Your task to perform on an android device: toggle sleep mode Image 0: 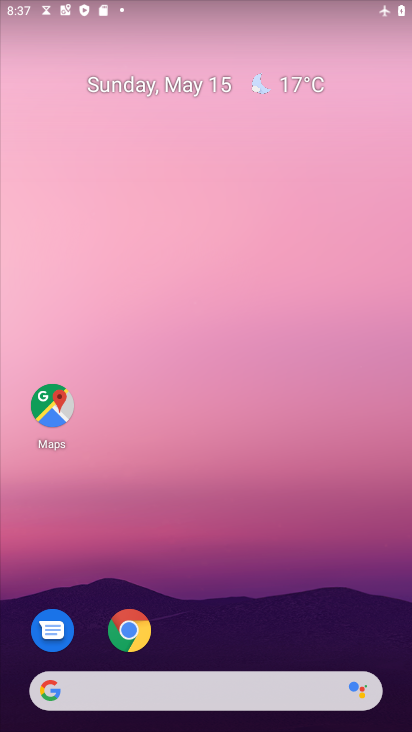
Step 0: drag from (224, 525) to (203, 96)
Your task to perform on an android device: toggle sleep mode Image 1: 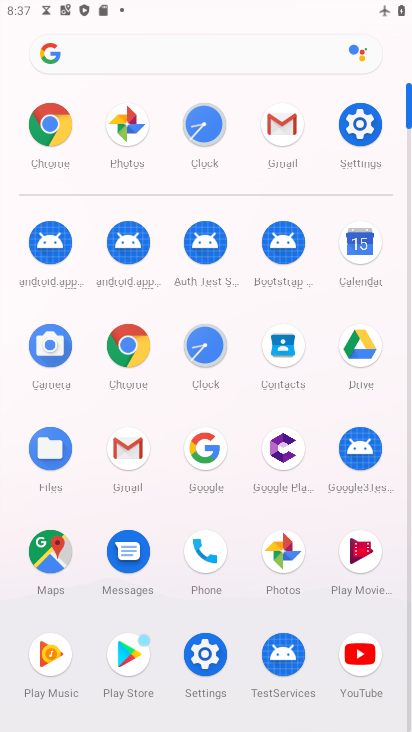
Step 1: click (389, 122)
Your task to perform on an android device: toggle sleep mode Image 2: 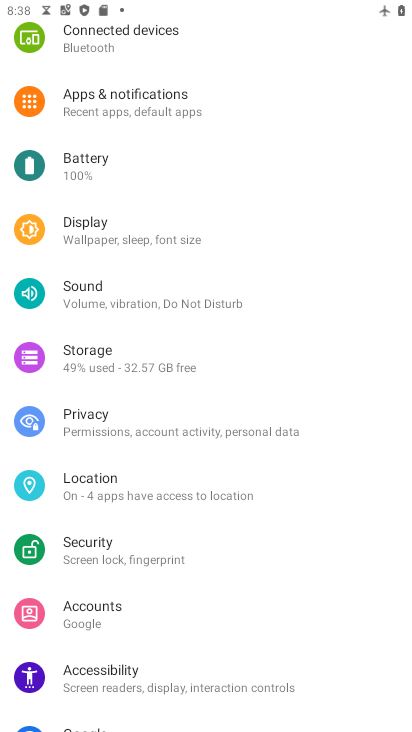
Step 2: drag from (207, 230) to (221, 544)
Your task to perform on an android device: toggle sleep mode Image 3: 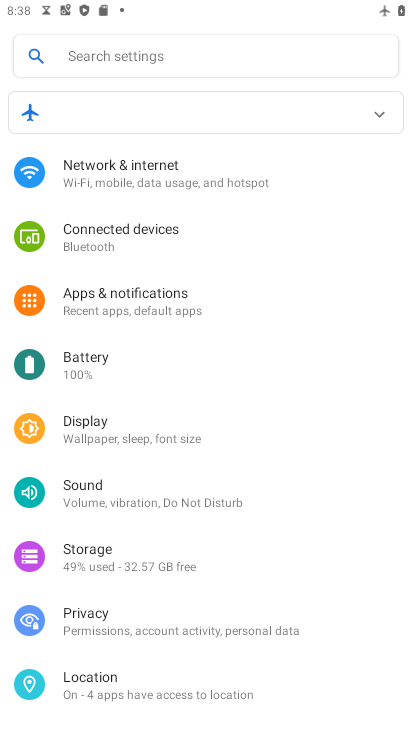
Step 3: drag from (233, 514) to (294, 143)
Your task to perform on an android device: toggle sleep mode Image 4: 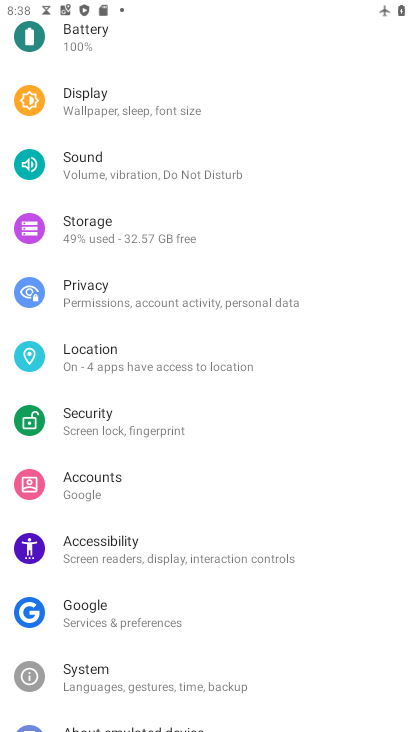
Step 4: drag from (130, 564) to (207, 142)
Your task to perform on an android device: toggle sleep mode Image 5: 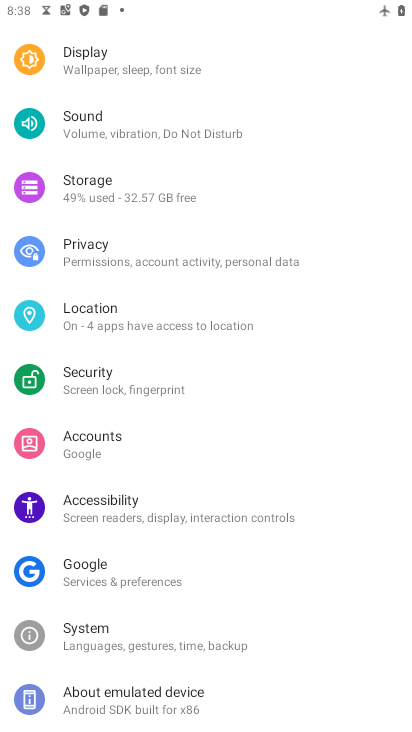
Step 5: drag from (97, 603) to (187, 342)
Your task to perform on an android device: toggle sleep mode Image 6: 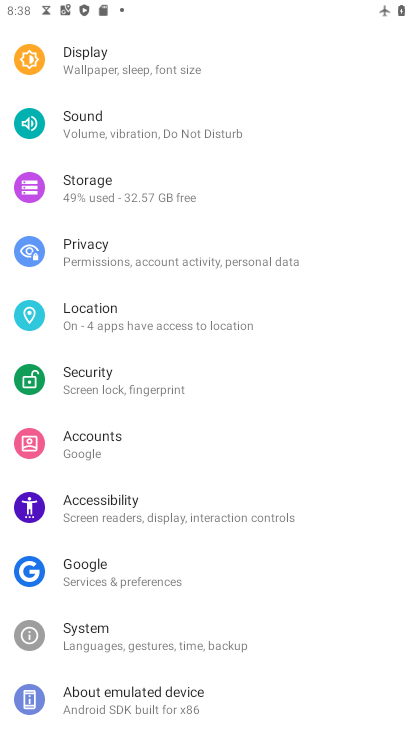
Step 6: click (104, 68)
Your task to perform on an android device: toggle sleep mode Image 7: 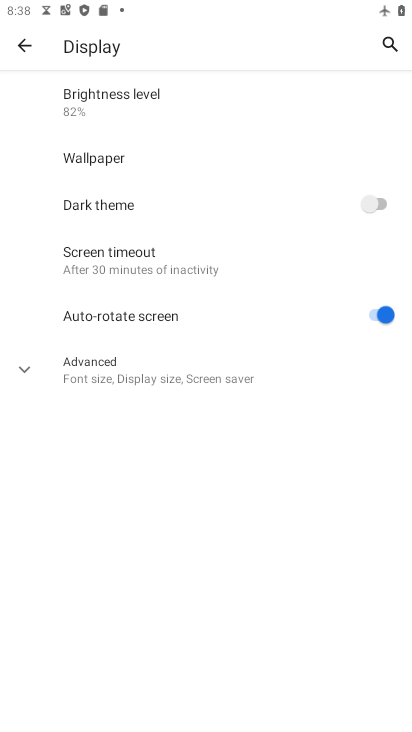
Step 7: click (64, 255)
Your task to perform on an android device: toggle sleep mode Image 8: 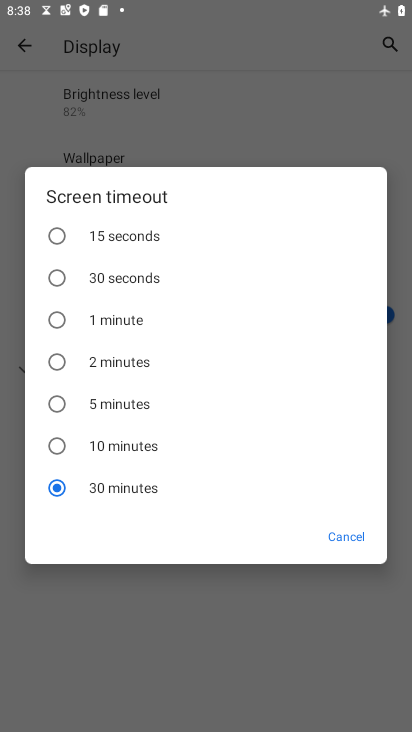
Step 8: click (97, 350)
Your task to perform on an android device: toggle sleep mode Image 9: 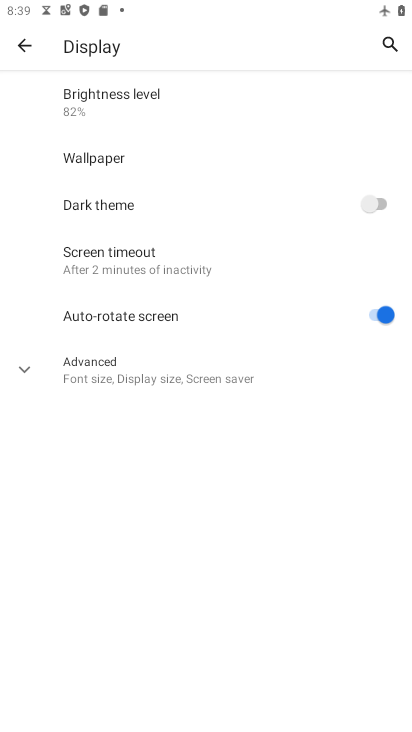
Step 9: task complete